Your task to perform on an android device: remove spam from my inbox in the gmail app Image 0: 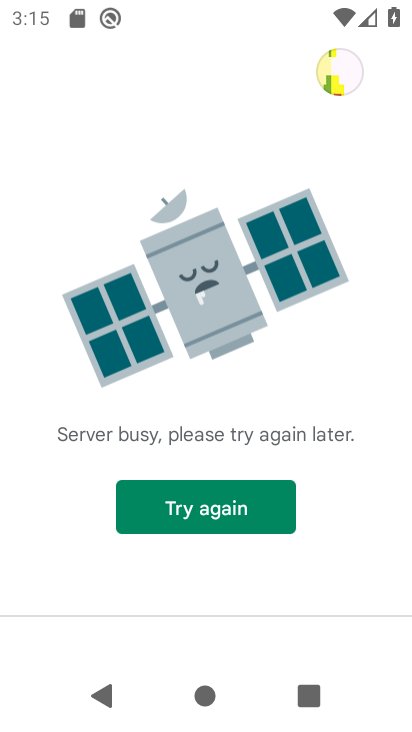
Step 0: press home button
Your task to perform on an android device: remove spam from my inbox in the gmail app Image 1: 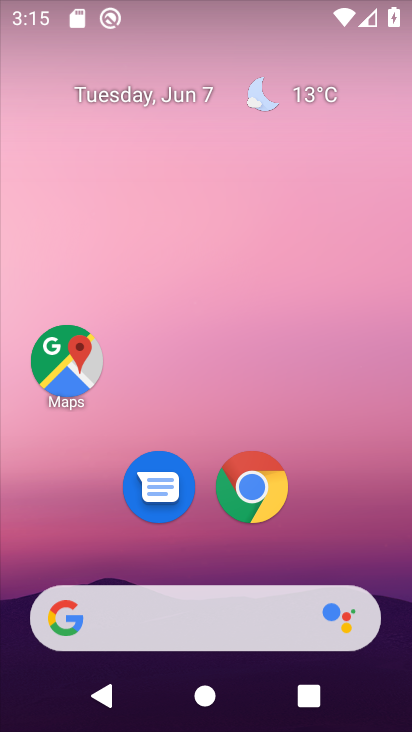
Step 1: drag from (312, 536) to (297, 71)
Your task to perform on an android device: remove spam from my inbox in the gmail app Image 2: 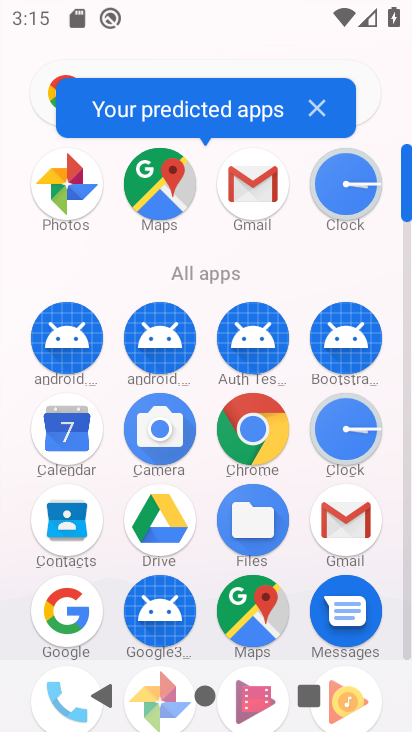
Step 2: click (258, 190)
Your task to perform on an android device: remove spam from my inbox in the gmail app Image 3: 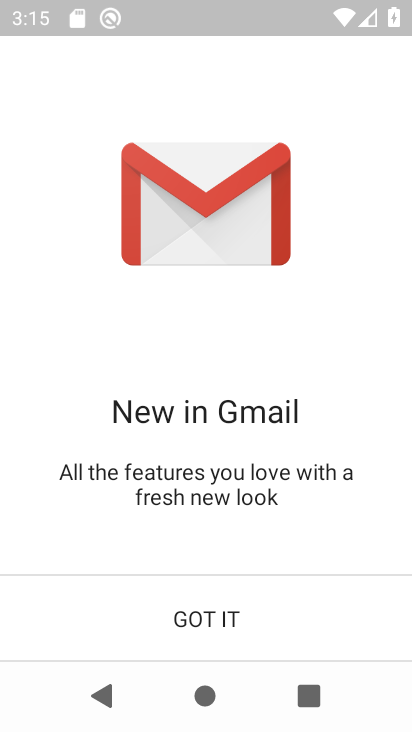
Step 3: click (224, 619)
Your task to perform on an android device: remove spam from my inbox in the gmail app Image 4: 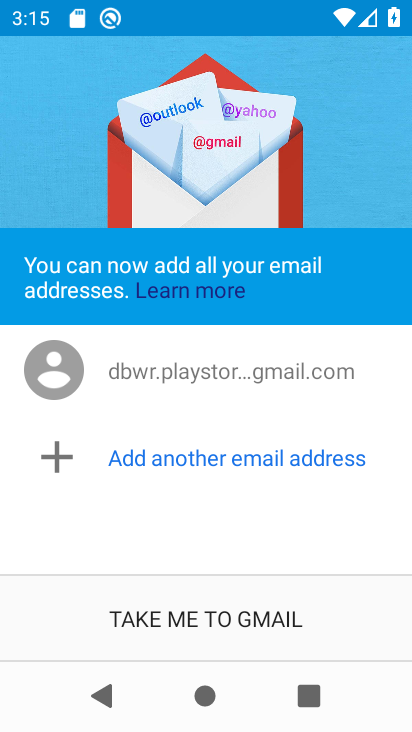
Step 4: click (189, 624)
Your task to perform on an android device: remove spam from my inbox in the gmail app Image 5: 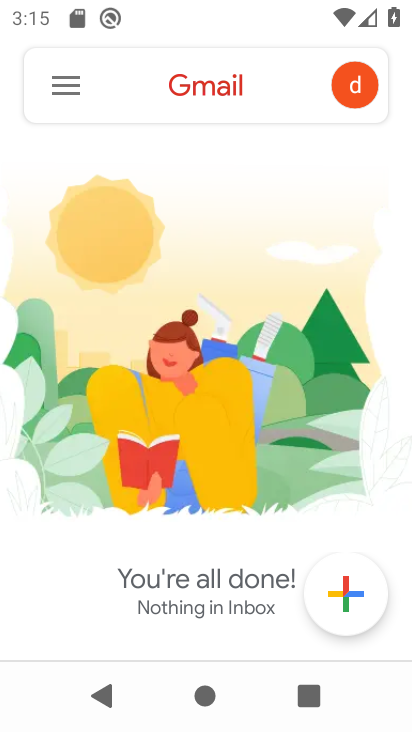
Step 5: click (62, 84)
Your task to perform on an android device: remove spam from my inbox in the gmail app Image 6: 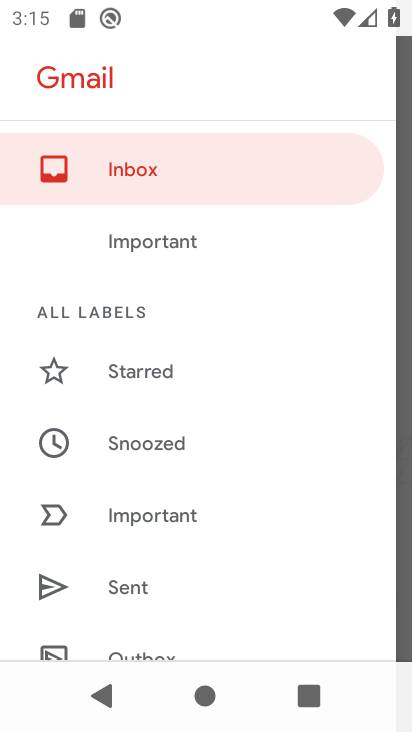
Step 6: click (173, 175)
Your task to perform on an android device: remove spam from my inbox in the gmail app Image 7: 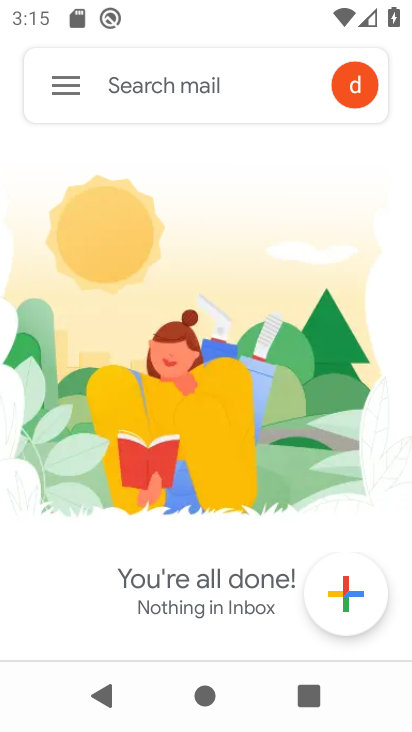
Step 7: task complete